Your task to perform on an android device: turn on priority inbox in the gmail app Image 0: 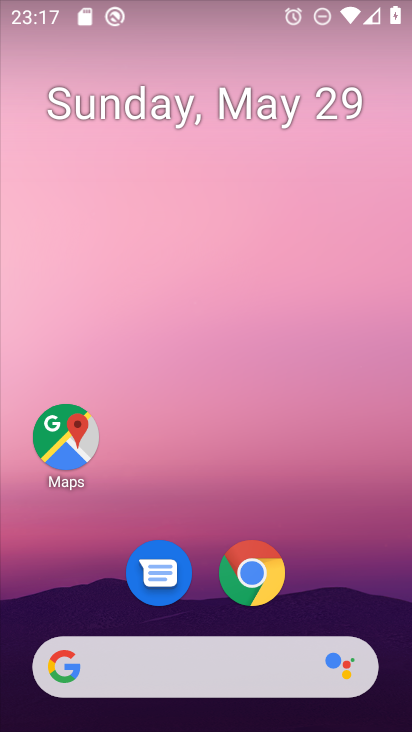
Step 0: drag from (221, 482) to (202, 14)
Your task to perform on an android device: turn on priority inbox in the gmail app Image 1: 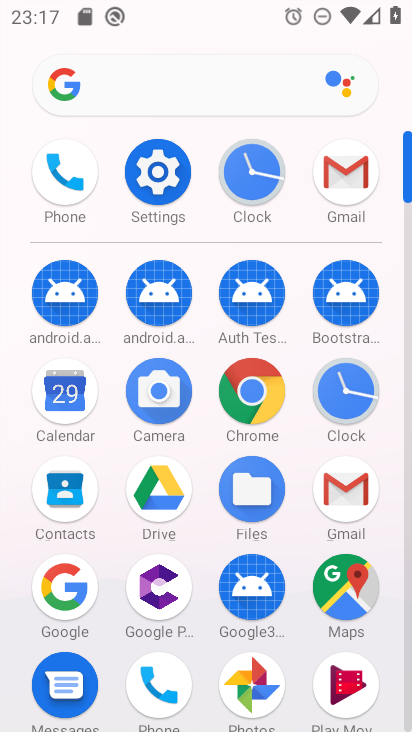
Step 1: click (331, 170)
Your task to perform on an android device: turn on priority inbox in the gmail app Image 2: 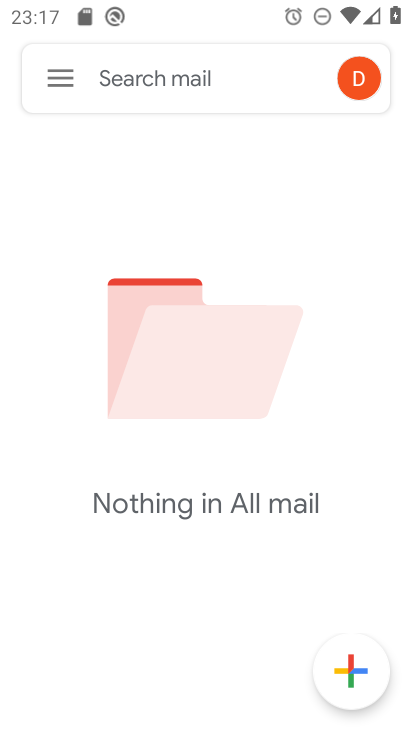
Step 2: click (63, 77)
Your task to perform on an android device: turn on priority inbox in the gmail app Image 3: 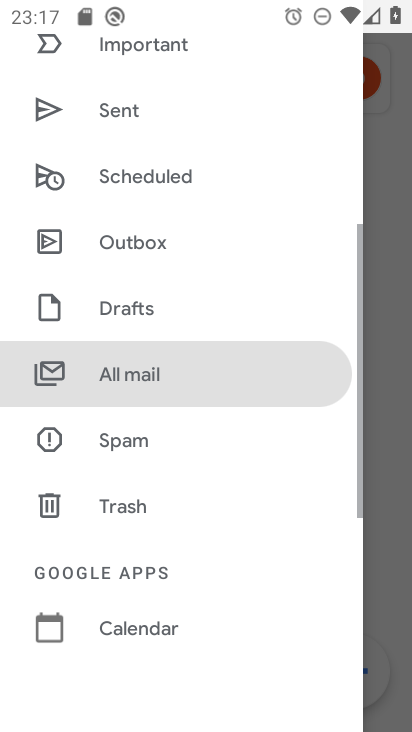
Step 3: drag from (232, 510) to (244, 131)
Your task to perform on an android device: turn on priority inbox in the gmail app Image 4: 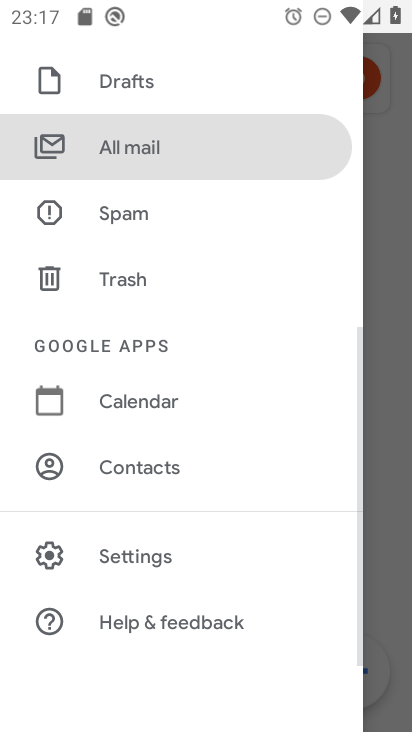
Step 4: click (154, 557)
Your task to perform on an android device: turn on priority inbox in the gmail app Image 5: 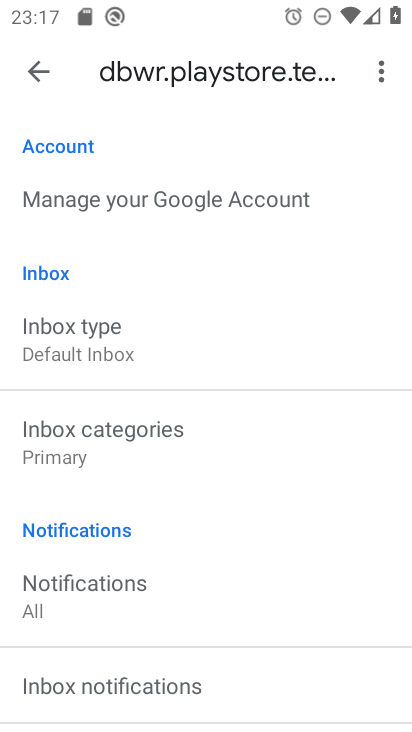
Step 5: click (103, 339)
Your task to perform on an android device: turn on priority inbox in the gmail app Image 6: 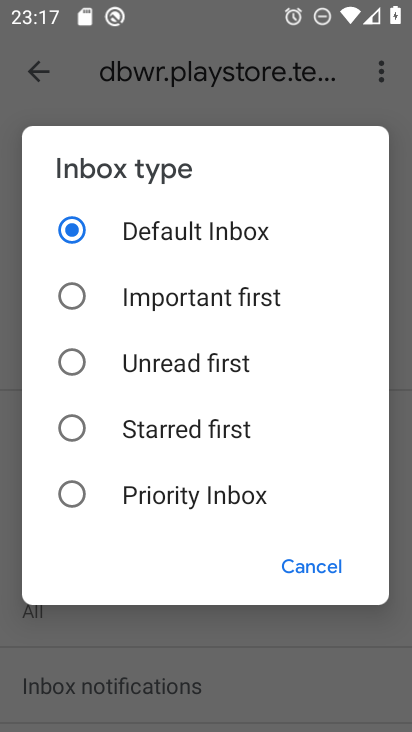
Step 6: click (84, 492)
Your task to perform on an android device: turn on priority inbox in the gmail app Image 7: 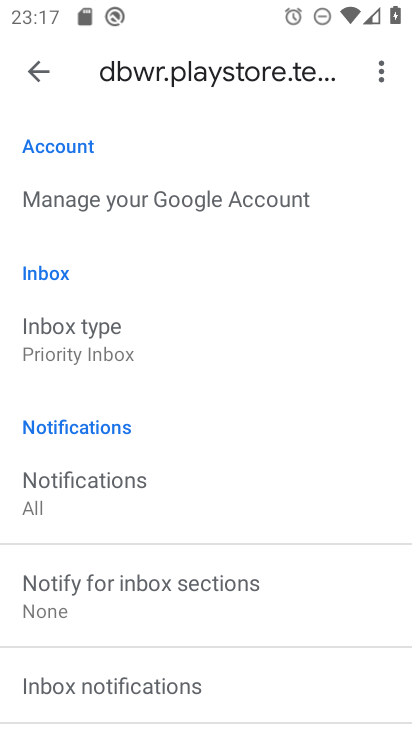
Step 7: task complete